Your task to perform on an android device: Open ESPN.com Image 0: 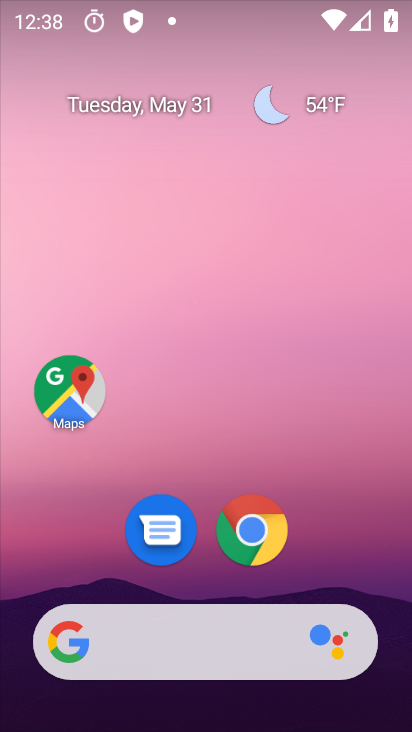
Step 0: drag from (353, 549) to (232, 37)
Your task to perform on an android device: Open ESPN.com Image 1: 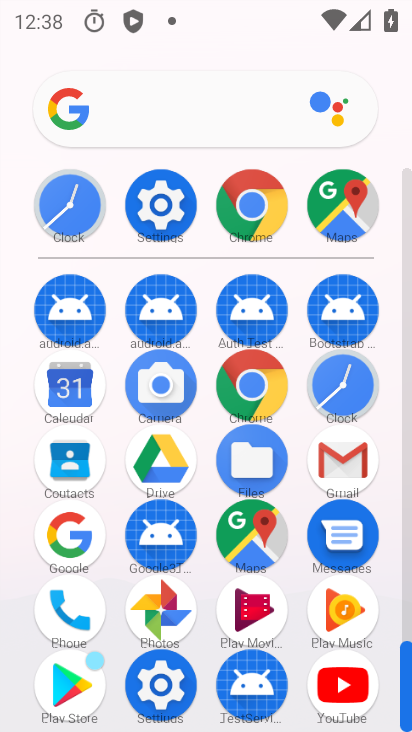
Step 1: drag from (9, 556) to (28, 213)
Your task to perform on an android device: Open ESPN.com Image 2: 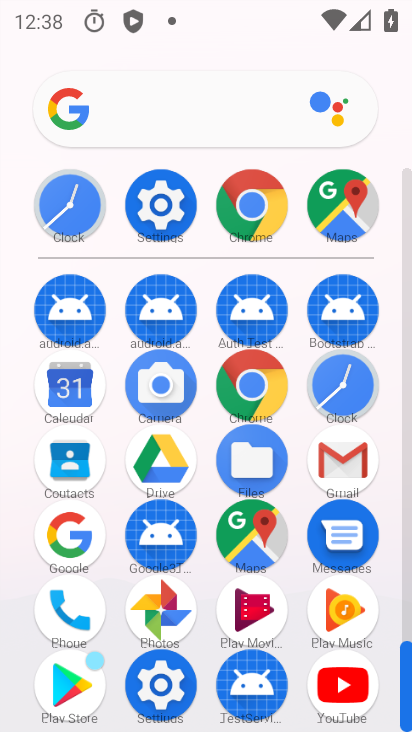
Step 2: click (258, 364)
Your task to perform on an android device: Open ESPN.com Image 3: 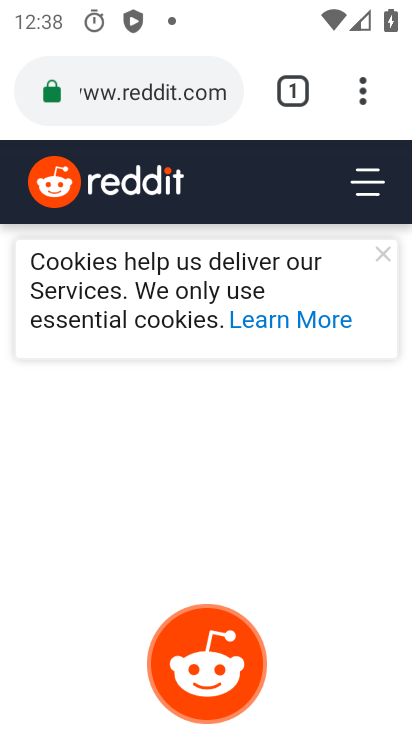
Step 3: click (179, 82)
Your task to perform on an android device: Open ESPN.com Image 4: 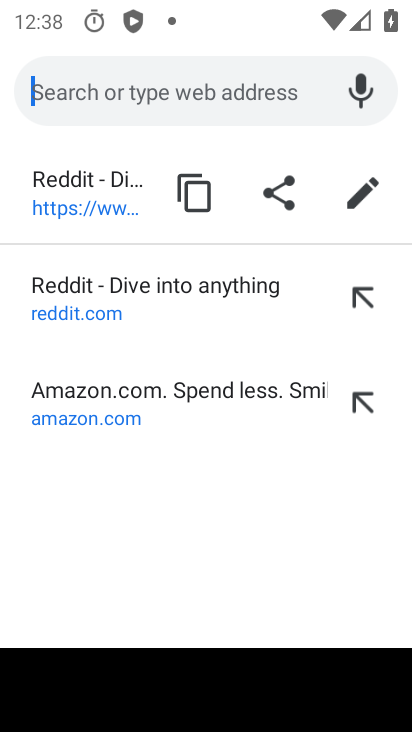
Step 4: type "ESPN.com"
Your task to perform on an android device: Open ESPN.com Image 5: 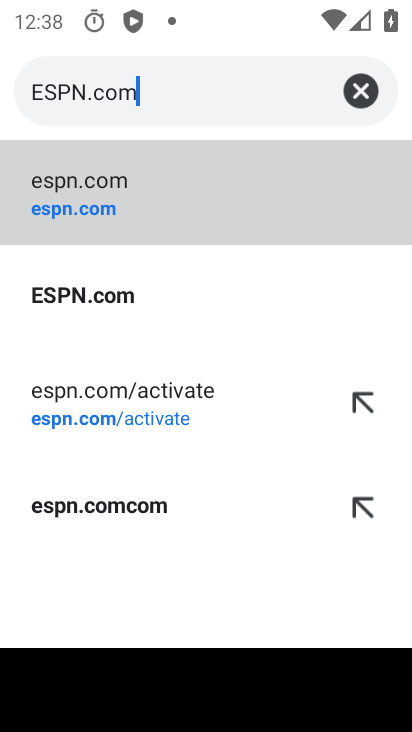
Step 5: type ""
Your task to perform on an android device: Open ESPN.com Image 6: 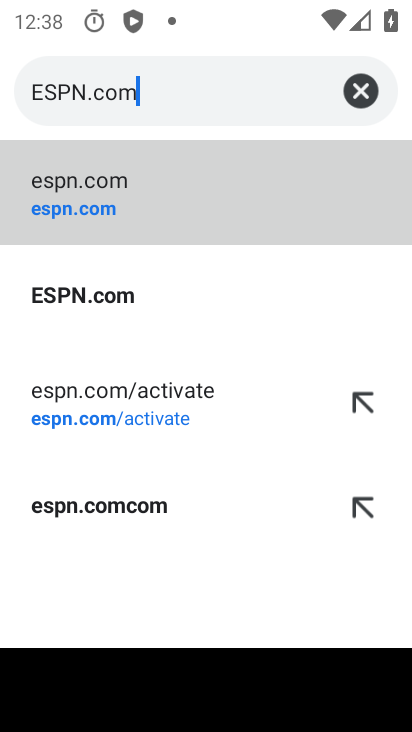
Step 6: click (141, 169)
Your task to perform on an android device: Open ESPN.com Image 7: 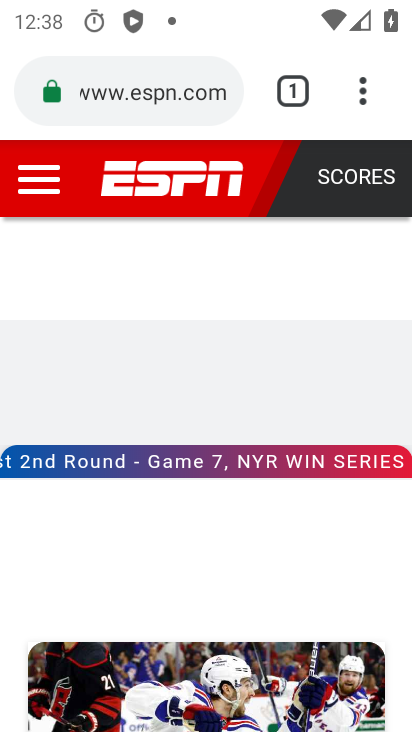
Step 7: task complete